Your task to perform on an android device: Check the weather Image 0: 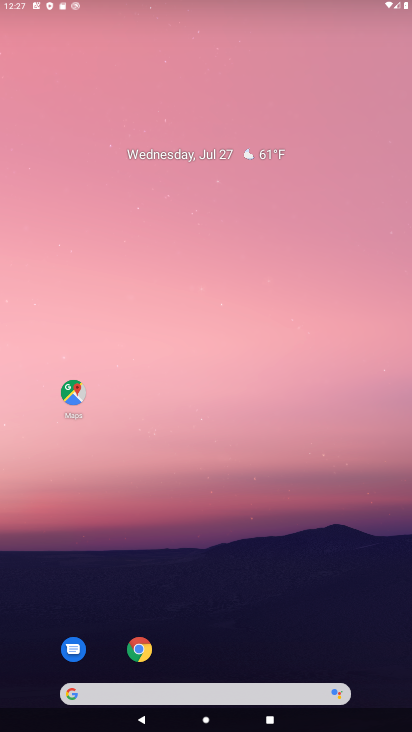
Step 0: press home button
Your task to perform on an android device: Check the weather Image 1: 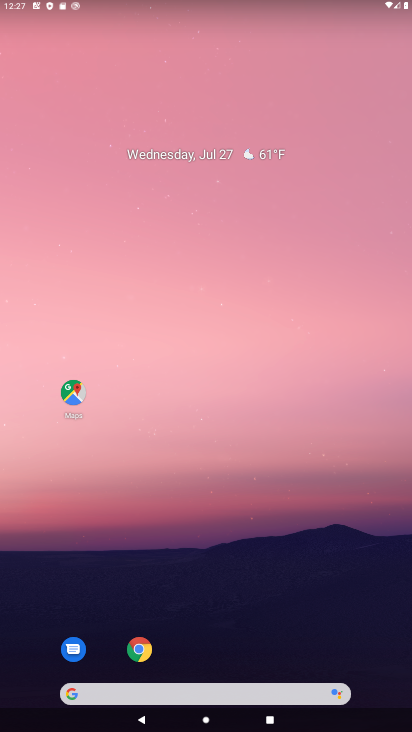
Step 1: drag from (233, 607) to (200, 196)
Your task to perform on an android device: Check the weather Image 2: 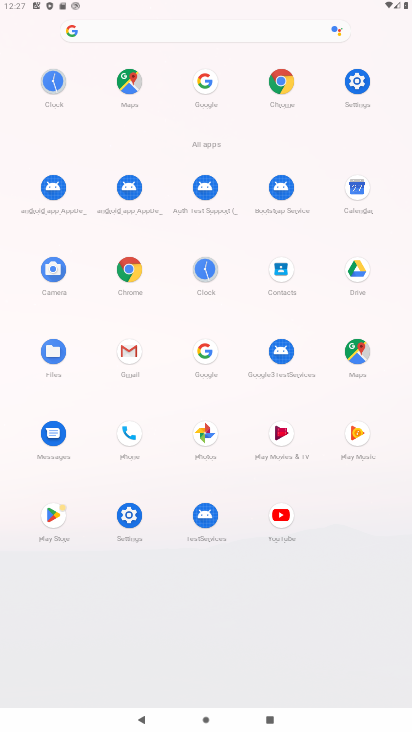
Step 2: click (284, 70)
Your task to perform on an android device: Check the weather Image 3: 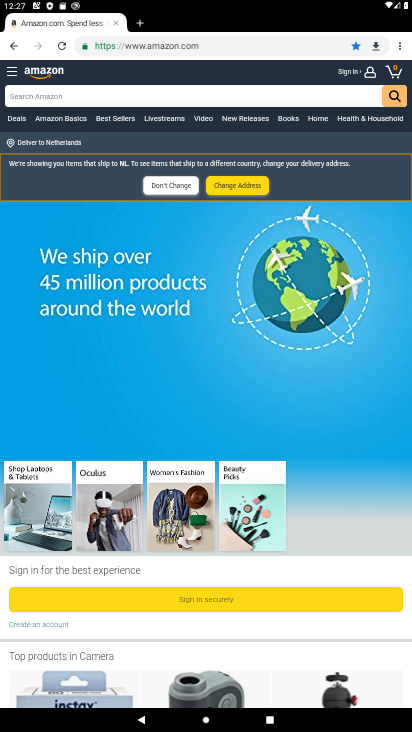
Step 3: click (188, 45)
Your task to perform on an android device: Check the weather Image 4: 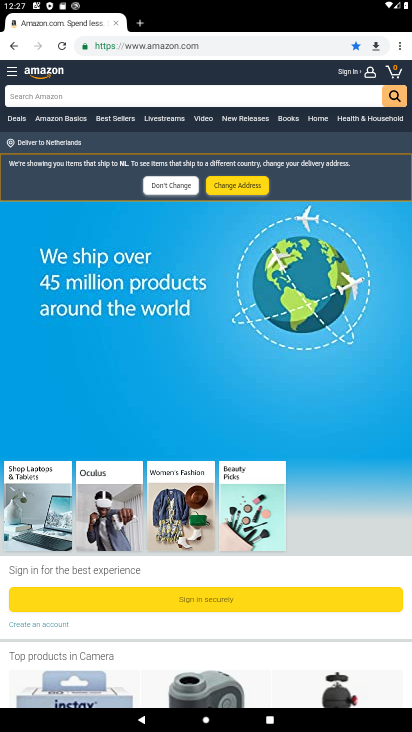
Step 4: click (188, 45)
Your task to perform on an android device: Check the weather Image 5: 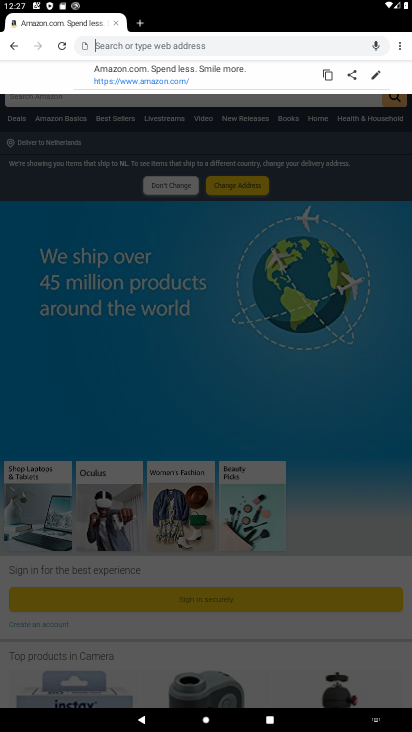
Step 5: type "Check the weather"
Your task to perform on an android device: Check the weather Image 6: 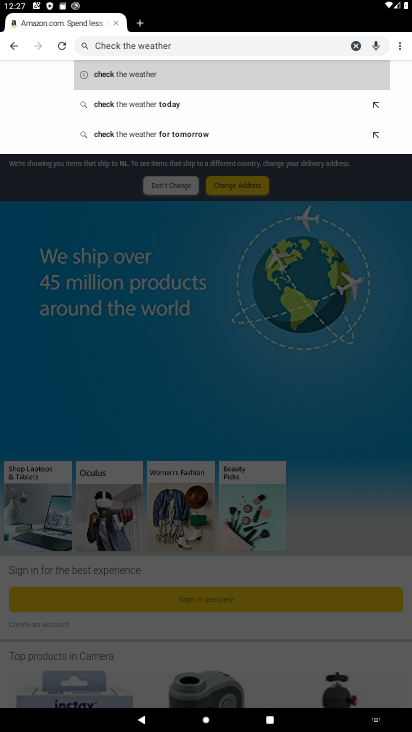
Step 6: click (160, 71)
Your task to perform on an android device: Check the weather Image 7: 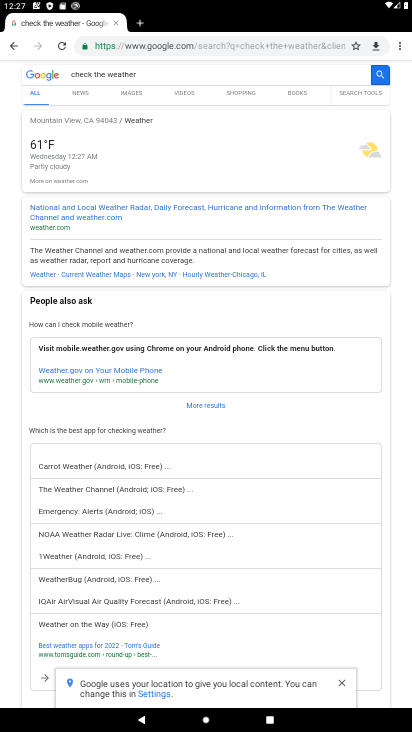
Step 7: task complete